Your task to perform on an android device: open chrome privacy settings Image 0: 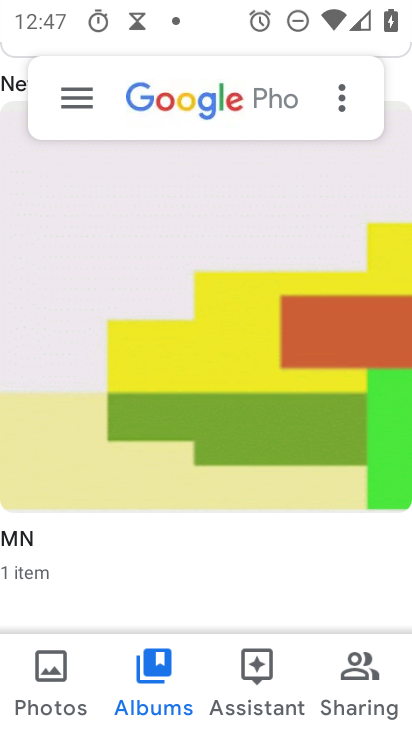
Step 0: press home button
Your task to perform on an android device: open chrome privacy settings Image 1: 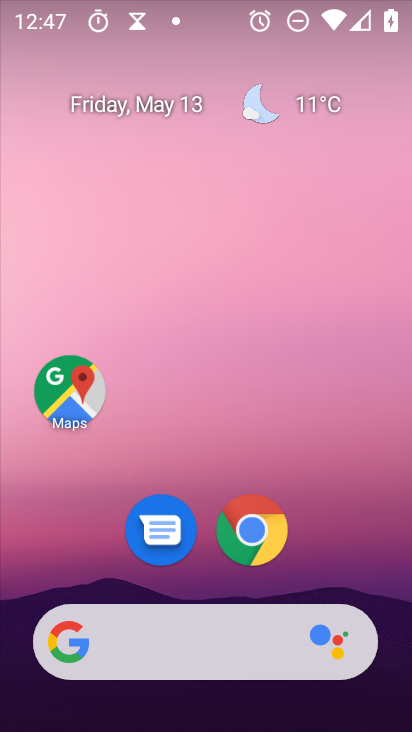
Step 1: click (253, 544)
Your task to perform on an android device: open chrome privacy settings Image 2: 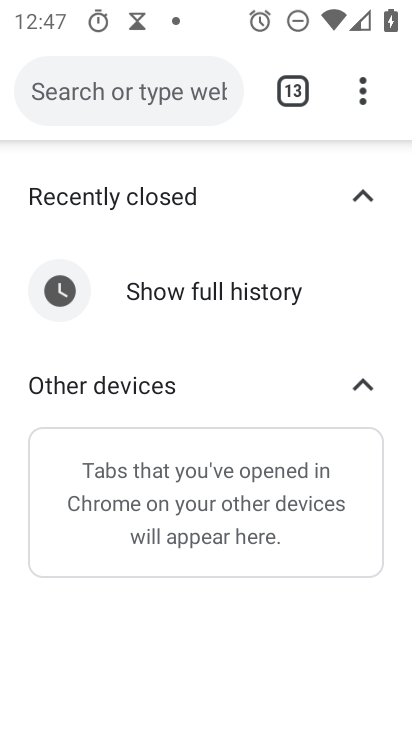
Step 2: drag from (360, 97) to (181, 569)
Your task to perform on an android device: open chrome privacy settings Image 3: 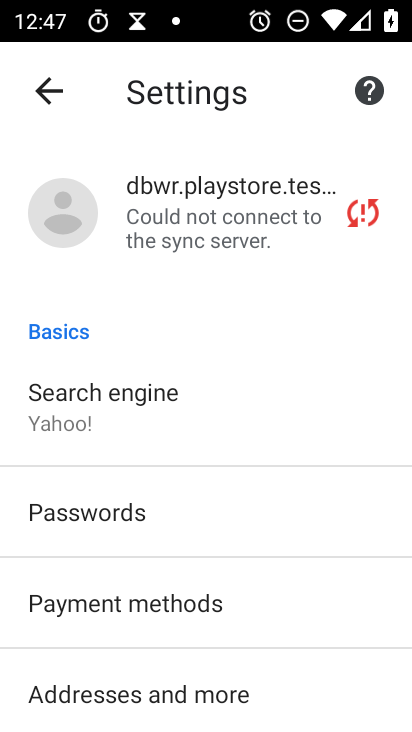
Step 3: drag from (210, 664) to (351, 262)
Your task to perform on an android device: open chrome privacy settings Image 4: 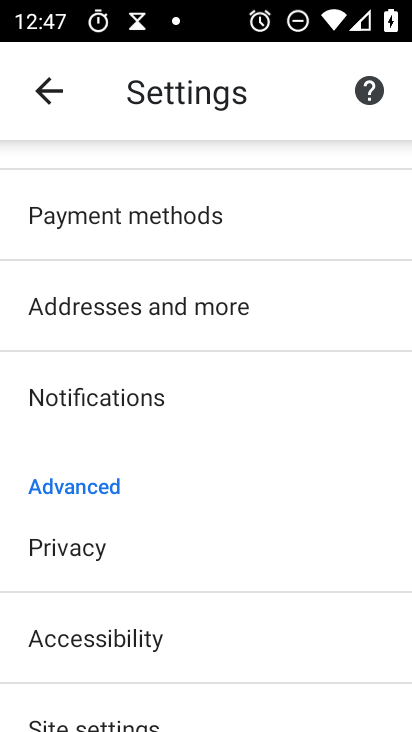
Step 4: click (74, 547)
Your task to perform on an android device: open chrome privacy settings Image 5: 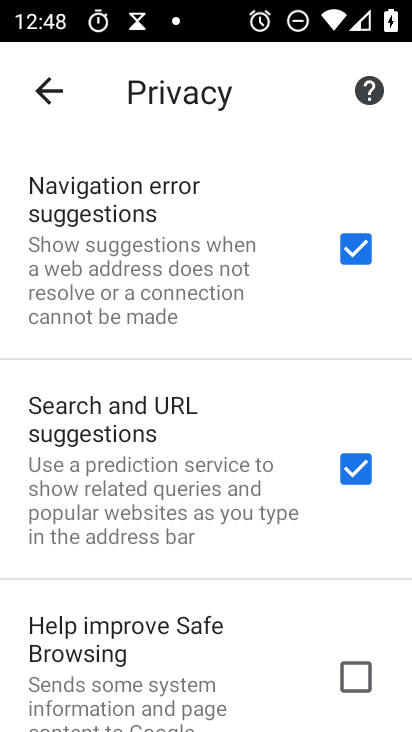
Step 5: task complete